Your task to perform on an android device: Search for vegetarian restaurants on Maps Image 0: 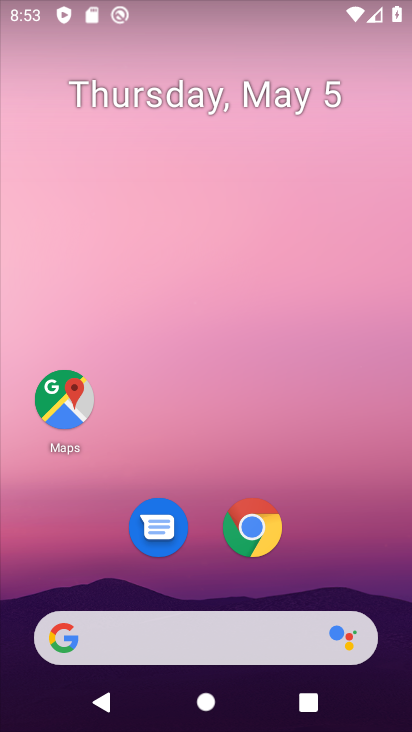
Step 0: drag from (268, 679) to (196, 69)
Your task to perform on an android device: Search for vegetarian restaurants on Maps Image 1: 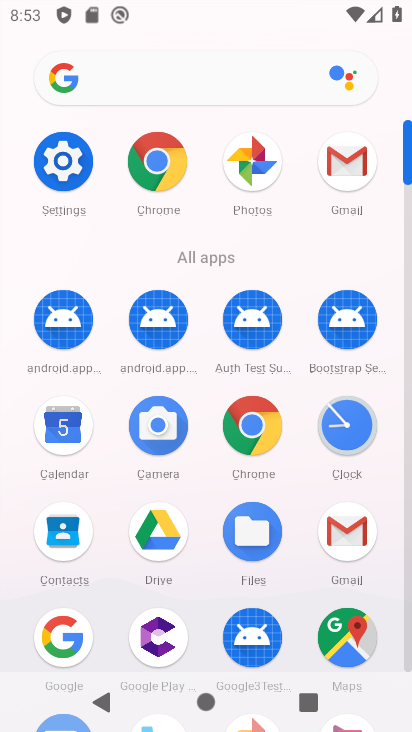
Step 1: click (346, 619)
Your task to perform on an android device: Search for vegetarian restaurants on Maps Image 2: 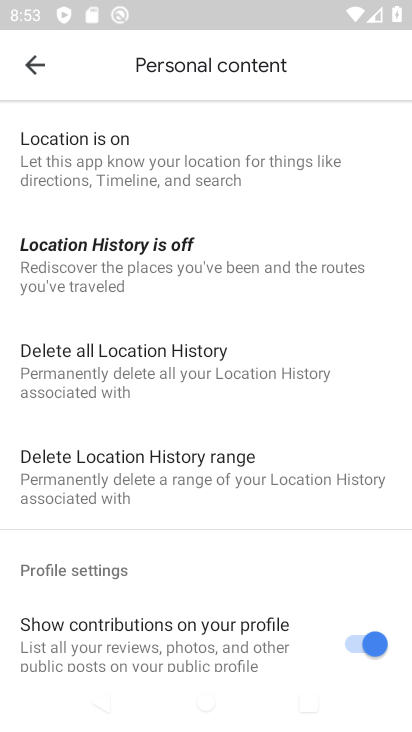
Step 2: click (24, 68)
Your task to perform on an android device: Search for vegetarian restaurants on Maps Image 3: 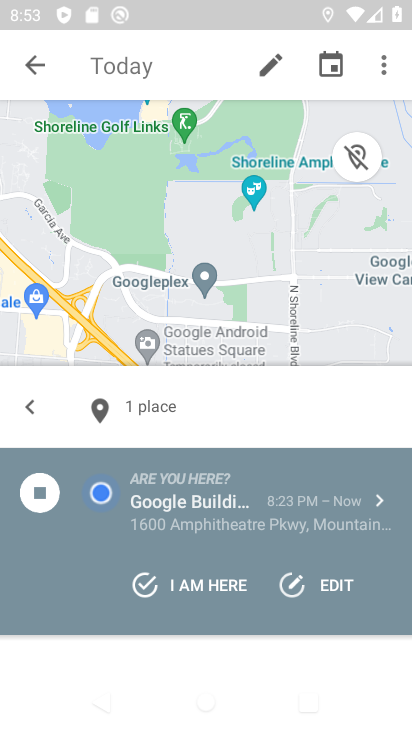
Step 3: click (100, 55)
Your task to perform on an android device: Search for vegetarian restaurants on Maps Image 4: 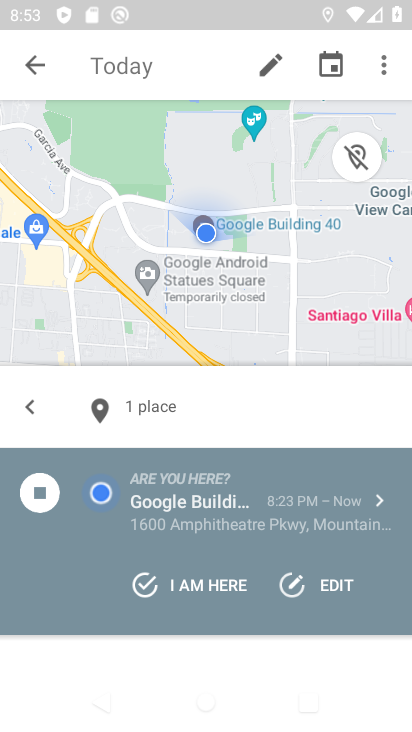
Step 4: click (95, 72)
Your task to perform on an android device: Search for vegetarian restaurants on Maps Image 5: 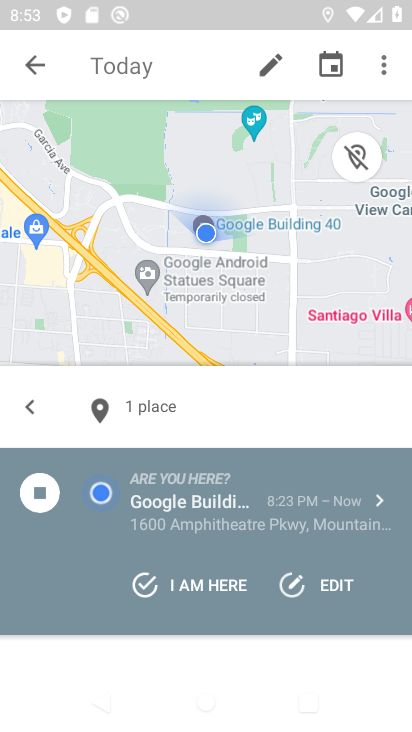
Step 5: click (93, 60)
Your task to perform on an android device: Search for vegetarian restaurants on Maps Image 6: 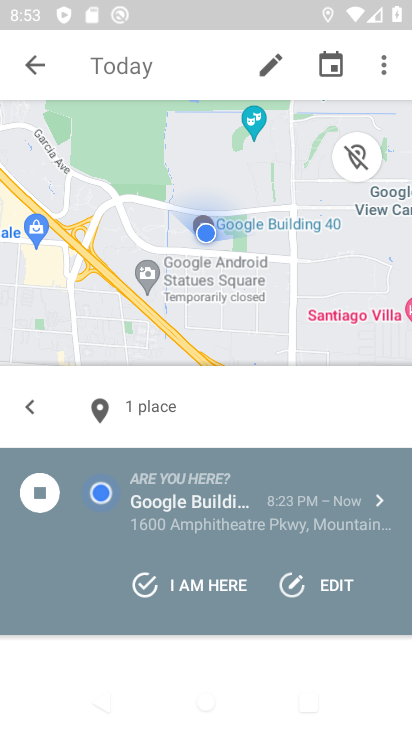
Step 6: click (93, 60)
Your task to perform on an android device: Search for vegetarian restaurants on Maps Image 7: 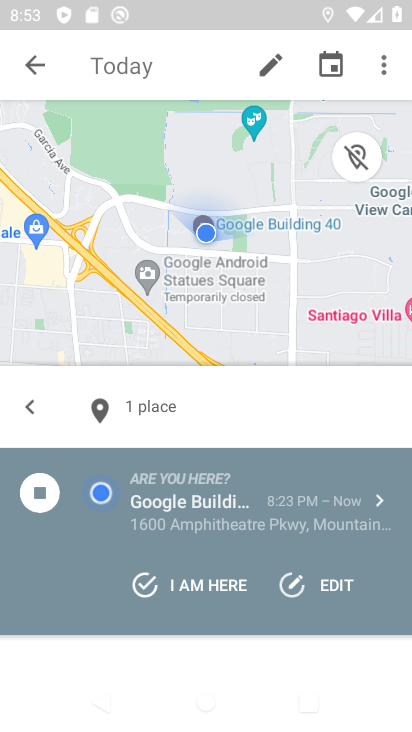
Step 7: click (93, 61)
Your task to perform on an android device: Search for vegetarian restaurants on Maps Image 8: 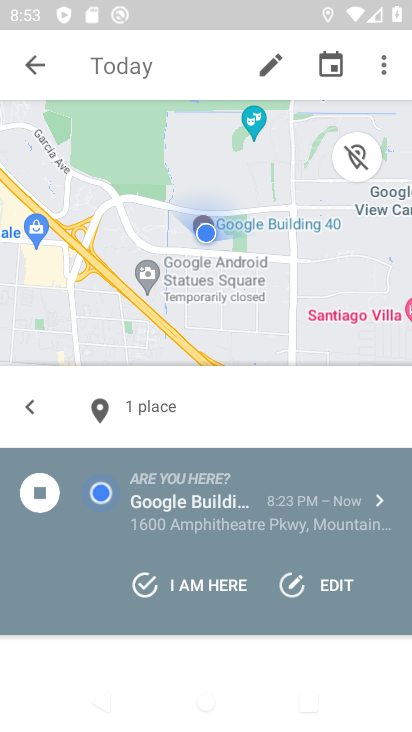
Step 8: click (111, 63)
Your task to perform on an android device: Search for vegetarian restaurants on Maps Image 9: 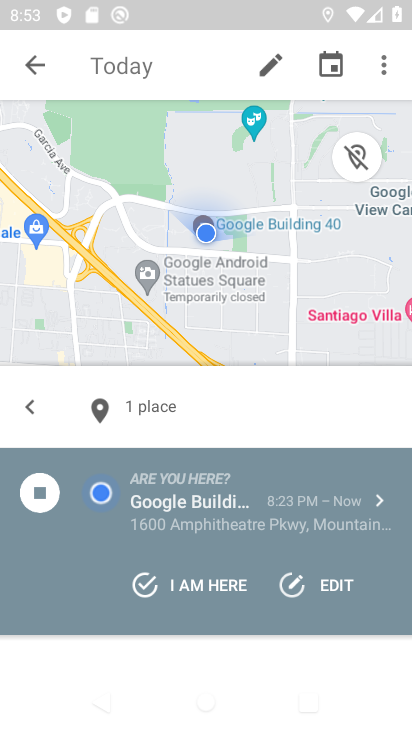
Step 9: click (112, 62)
Your task to perform on an android device: Search for vegetarian restaurants on Maps Image 10: 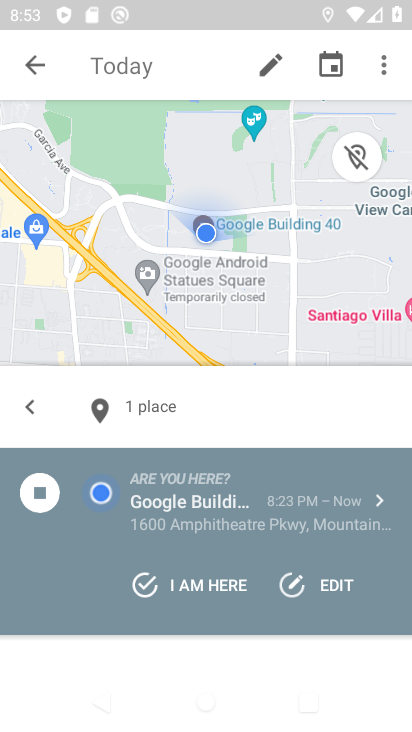
Step 10: click (104, 55)
Your task to perform on an android device: Search for vegetarian restaurants on Maps Image 11: 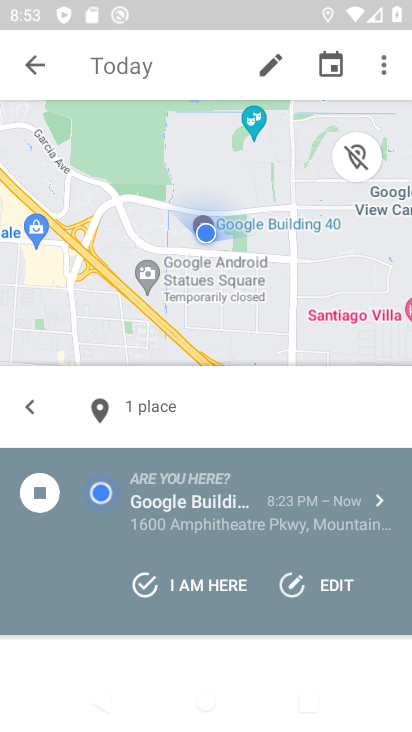
Step 11: click (101, 76)
Your task to perform on an android device: Search for vegetarian restaurants on Maps Image 12: 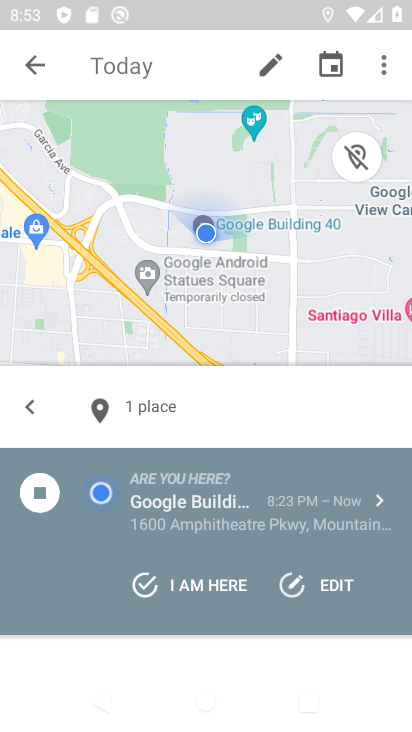
Step 12: click (27, 60)
Your task to perform on an android device: Search for vegetarian restaurants on Maps Image 13: 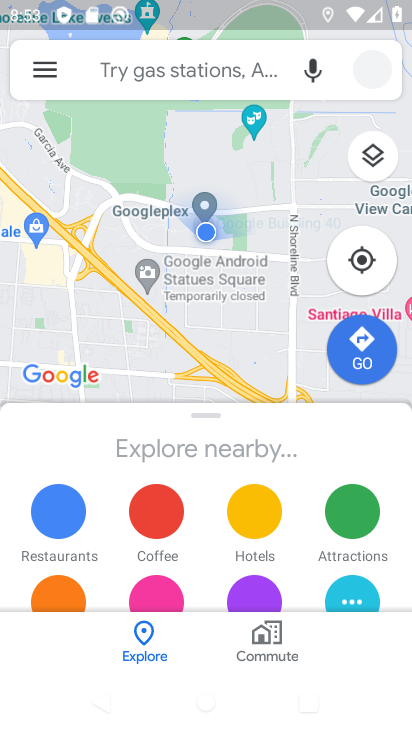
Step 13: click (107, 64)
Your task to perform on an android device: Search for vegetarian restaurants on Maps Image 14: 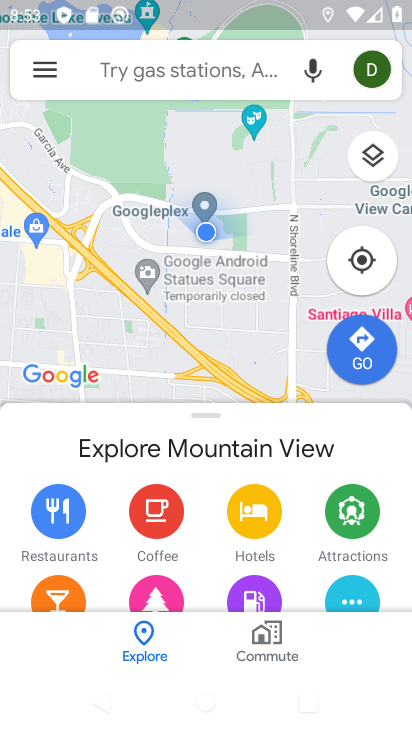
Step 14: click (107, 64)
Your task to perform on an android device: Search for vegetarian restaurants on Maps Image 15: 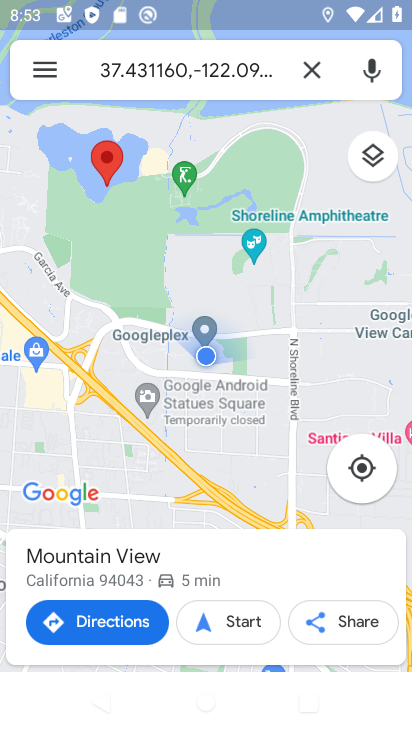
Step 15: click (313, 69)
Your task to perform on an android device: Search for vegetarian restaurants on Maps Image 16: 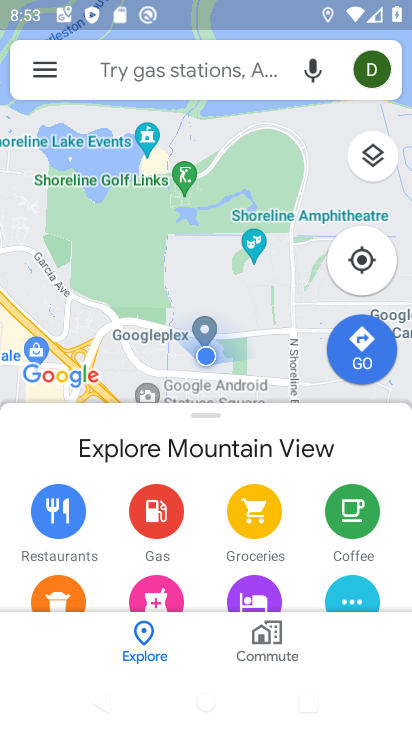
Step 16: click (113, 67)
Your task to perform on an android device: Search for vegetarian restaurants on Maps Image 17: 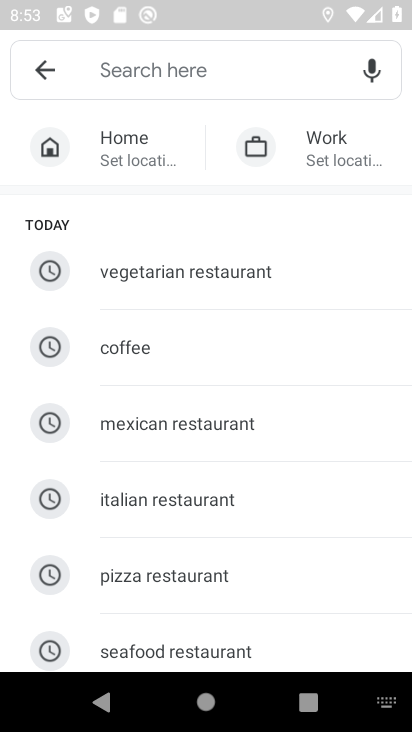
Step 17: click (214, 272)
Your task to perform on an android device: Search for vegetarian restaurants on Maps Image 18: 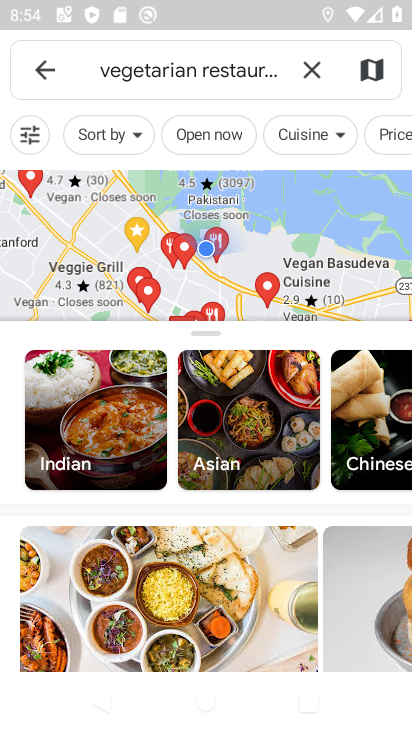
Step 18: task complete